Your task to perform on an android device: Search for vegetarian restaurants on Maps Image 0: 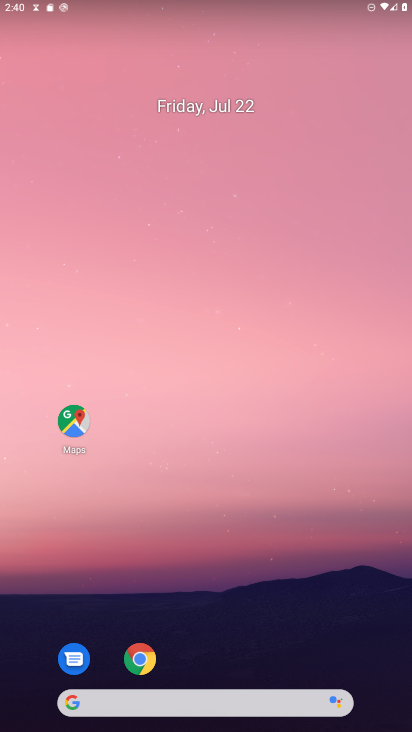
Step 0: drag from (285, 649) to (249, 125)
Your task to perform on an android device: Search for vegetarian restaurants on Maps Image 1: 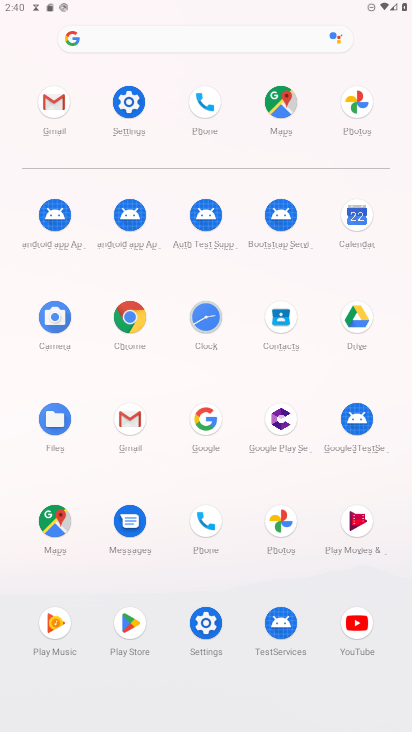
Step 1: click (44, 521)
Your task to perform on an android device: Search for vegetarian restaurants on Maps Image 2: 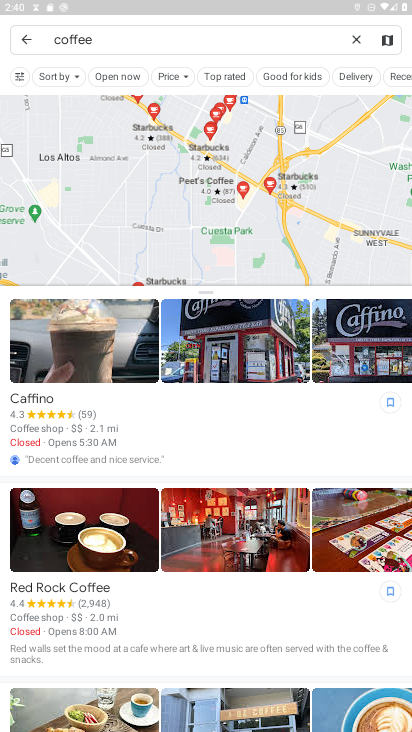
Step 2: click (24, 34)
Your task to perform on an android device: Search for vegetarian restaurants on Maps Image 3: 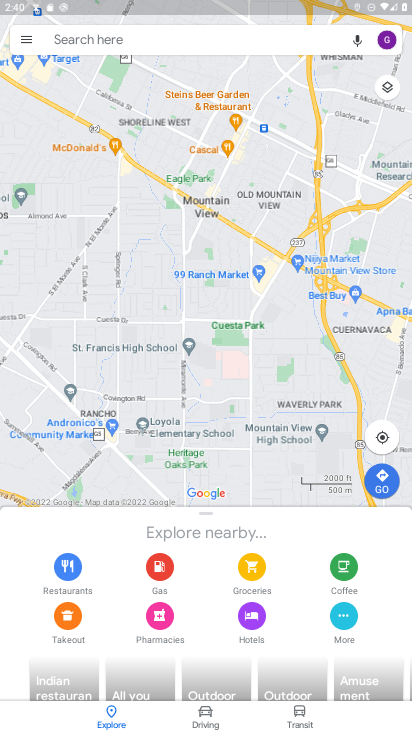
Step 3: click (267, 44)
Your task to perform on an android device: Search for vegetarian restaurants on Maps Image 4: 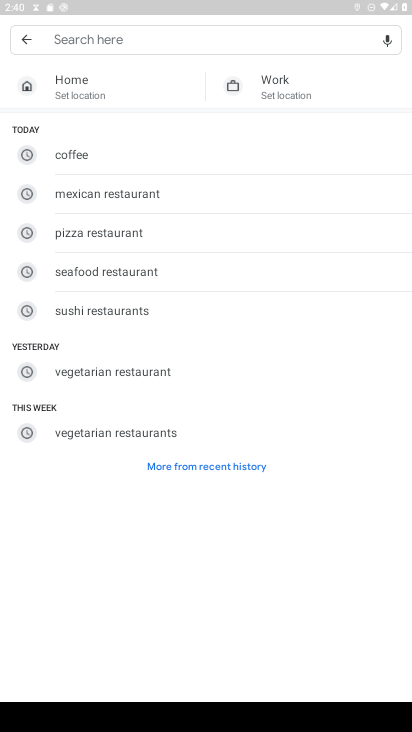
Step 4: click (106, 377)
Your task to perform on an android device: Search for vegetarian restaurants on Maps Image 5: 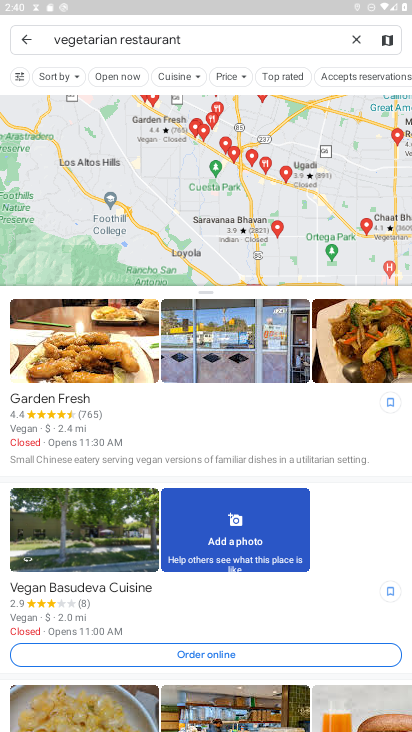
Step 5: task complete